Your task to perform on an android device: delete a single message in the gmail app Image 0: 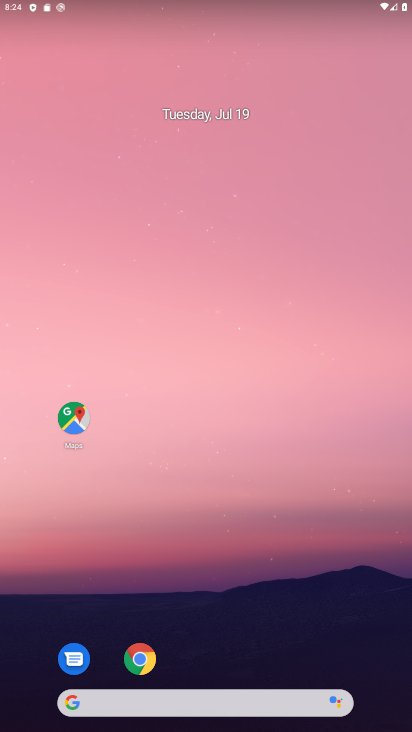
Step 0: drag from (253, 651) to (287, 182)
Your task to perform on an android device: delete a single message in the gmail app Image 1: 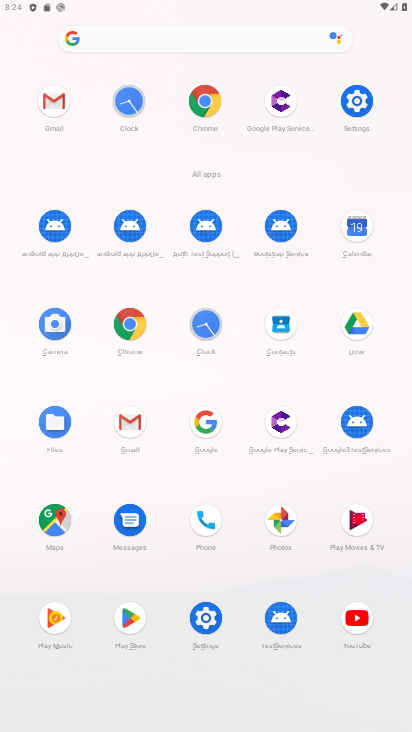
Step 1: click (126, 437)
Your task to perform on an android device: delete a single message in the gmail app Image 2: 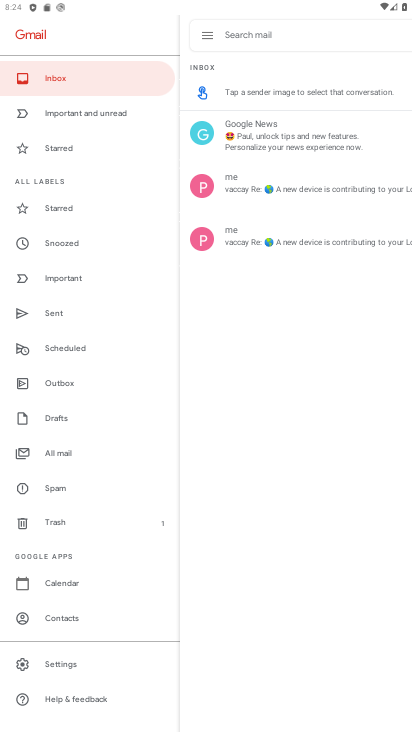
Step 2: click (297, 136)
Your task to perform on an android device: delete a single message in the gmail app Image 3: 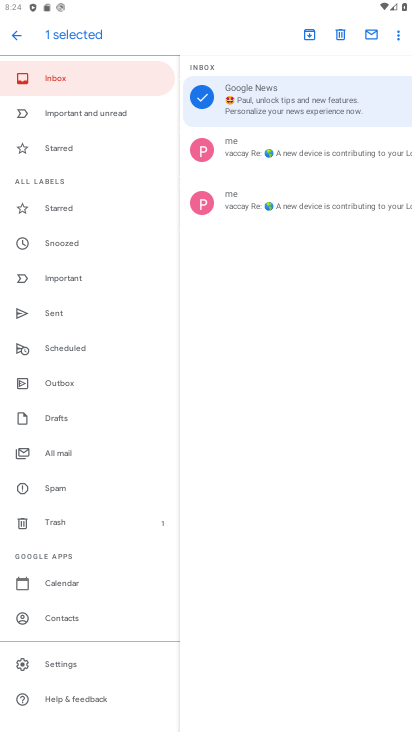
Step 3: click (338, 30)
Your task to perform on an android device: delete a single message in the gmail app Image 4: 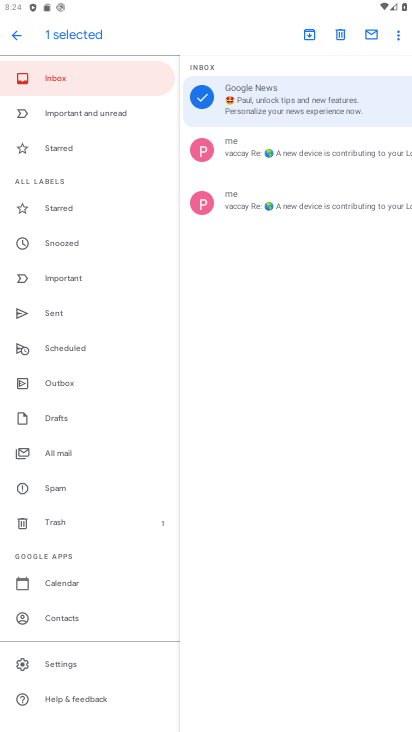
Step 4: click (347, 31)
Your task to perform on an android device: delete a single message in the gmail app Image 5: 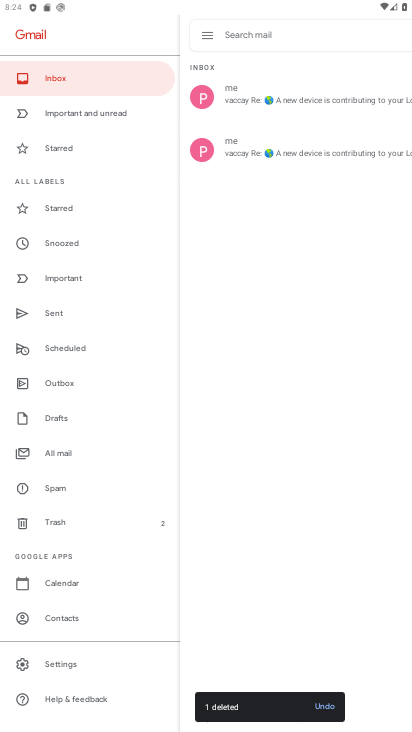
Step 5: task complete